Your task to perform on an android device: Go to settings Image 0: 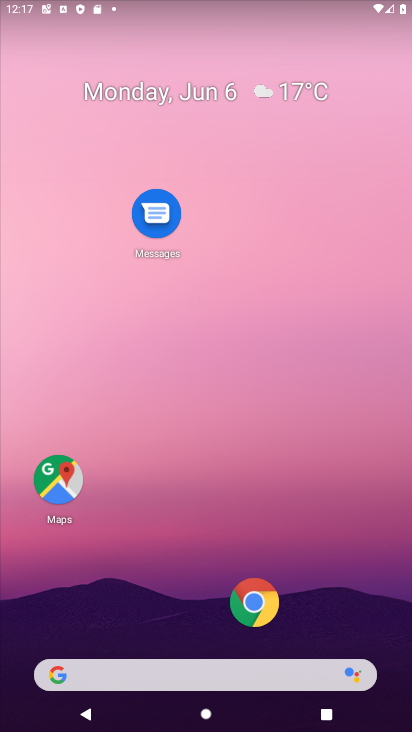
Step 0: drag from (332, 602) to (244, 160)
Your task to perform on an android device: Go to settings Image 1: 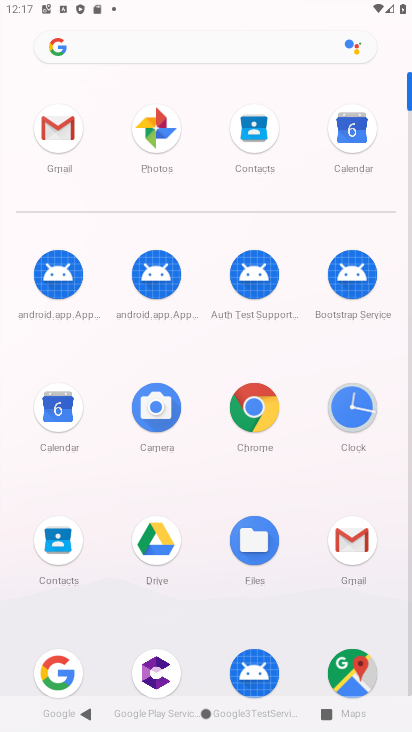
Step 1: drag from (312, 620) to (304, 271)
Your task to perform on an android device: Go to settings Image 2: 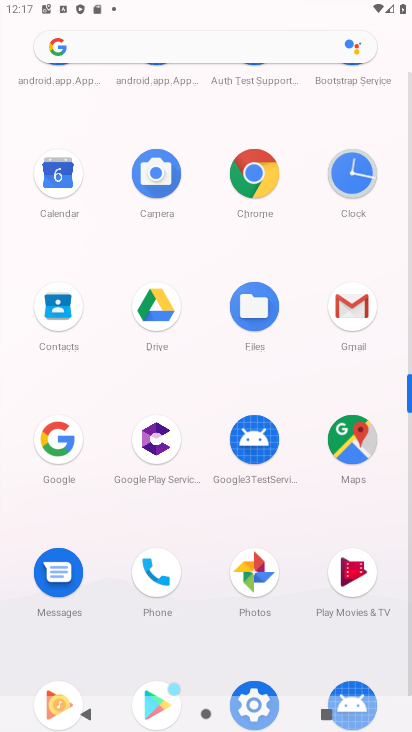
Step 2: click (250, 693)
Your task to perform on an android device: Go to settings Image 3: 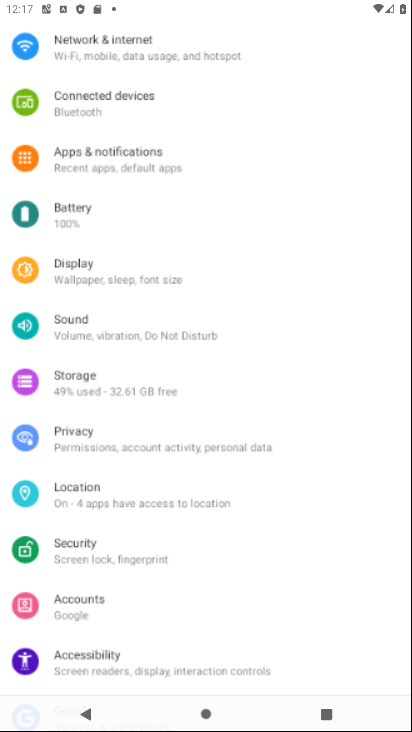
Step 3: task complete